Your task to perform on an android device: turn on notifications settings in the gmail app Image 0: 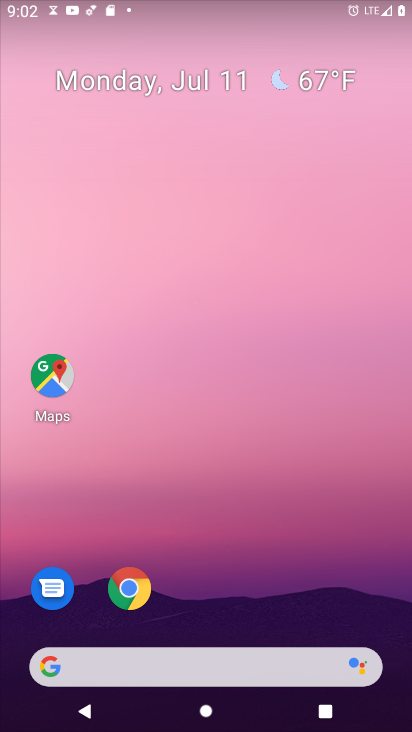
Step 0: drag from (297, 570) to (276, 222)
Your task to perform on an android device: turn on notifications settings in the gmail app Image 1: 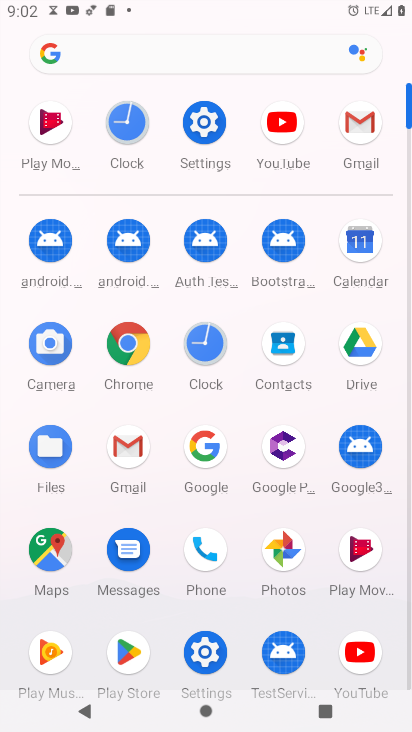
Step 1: click (374, 129)
Your task to perform on an android device: turn on notifications settings in the gmail app Image 2: 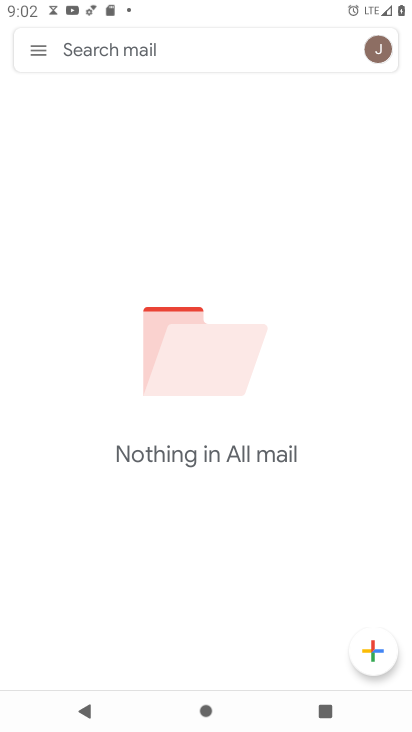
Step 2: click (33, 43)
Your task to perform on an android device: turn on notifications settings in the gmail app Image 3: 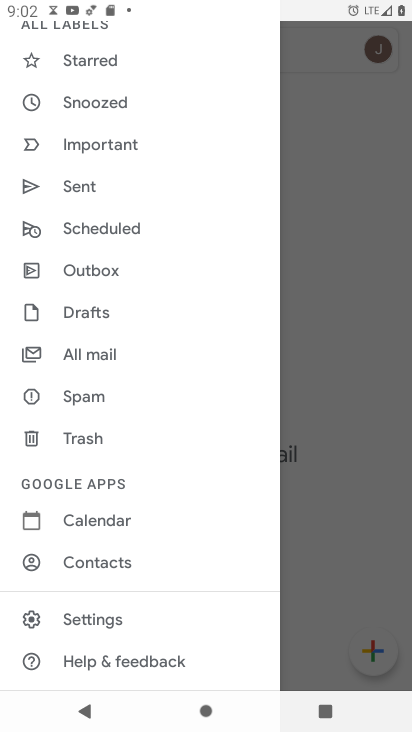
Step 3: click (110, 620)
Your task to perform on an android device: turn on notifications settings in the gmail app Image 4: 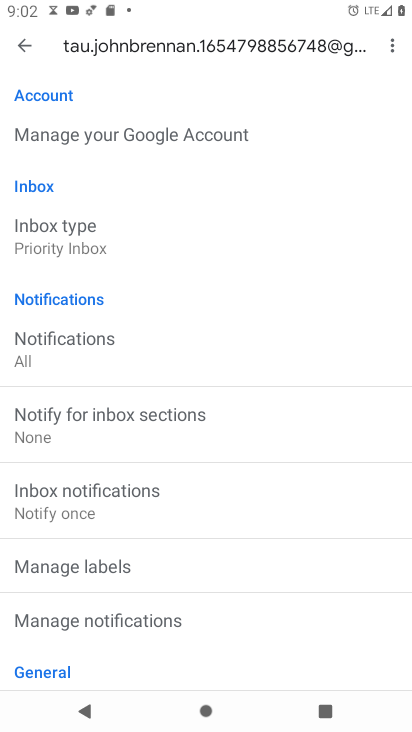
Step 4: click (51, 625)
Your task to perform on an android device: turn on notifications settings in the gmail app Image 5: 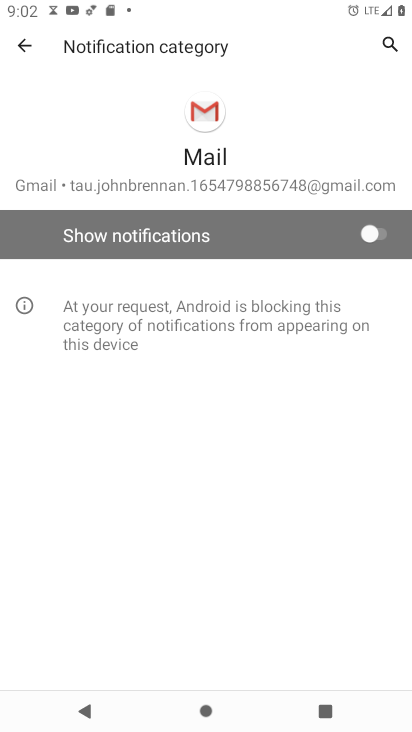
Step 5: click (371, 225)
Your task to perform on an android device: turn on notifications settings in the gmail app Image 6: 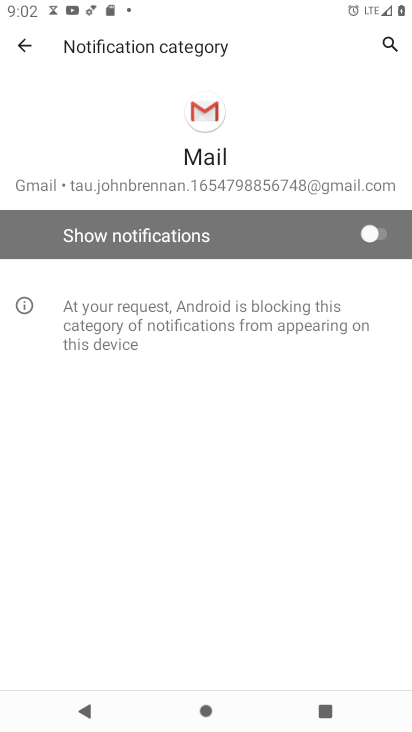
Step 6: click (374, 229)
Your task to perform on an android device: turn on notifications settings in the gmail app Image 7: 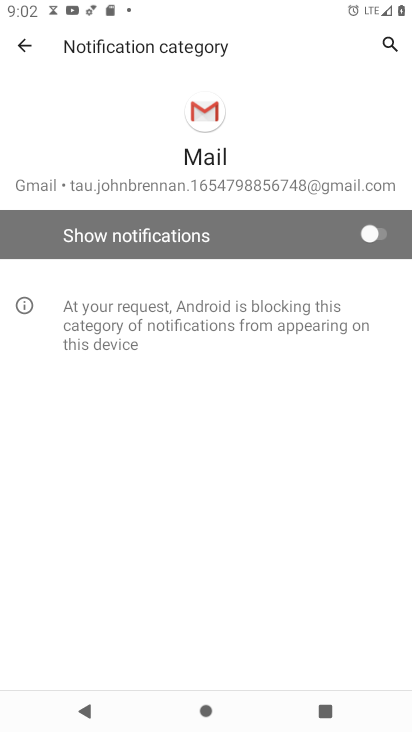
Step 7: click (374, 229)
Your task to perform on an android device: turn on notifications settings in the gmail app Image 8: 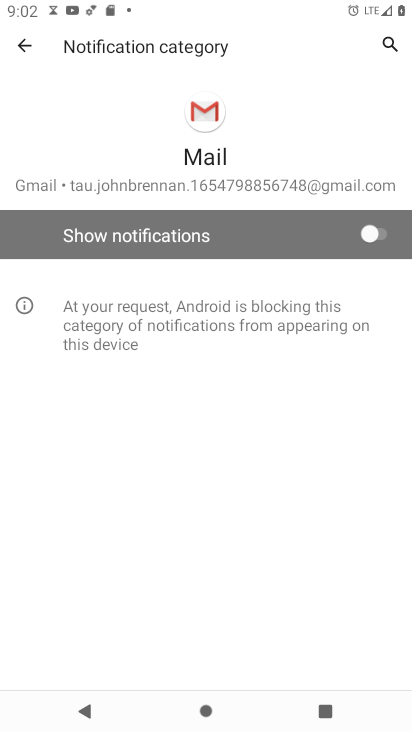
Step 8: task complete